Your task to perform on an android device: turn on showing notifications on the lock screen Image 0: 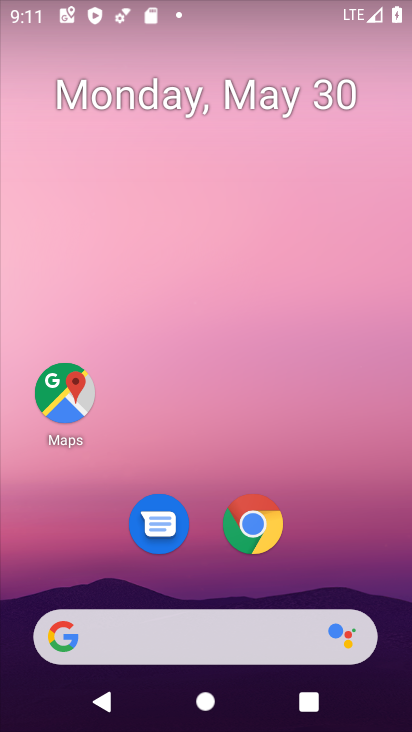
Step 0: drag from (354, 552) to (341, 62)
Your task to perform on an android device: turn on showing notifications on the lock screen Image 1: 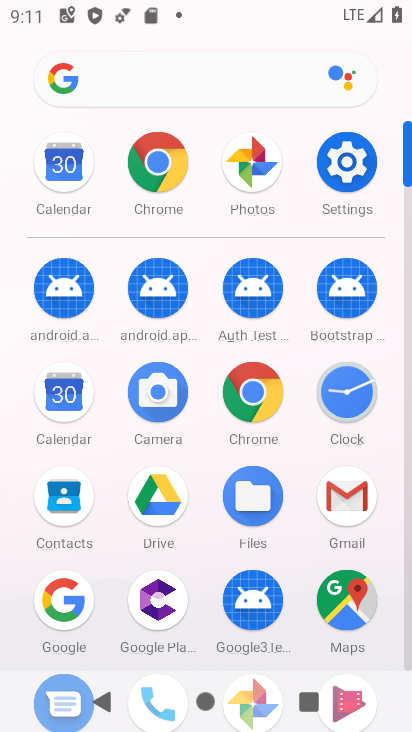
Step 1: click (360, 157)
Your task to perform on an android device: turn on showing notifications on the lock screen Image 2: 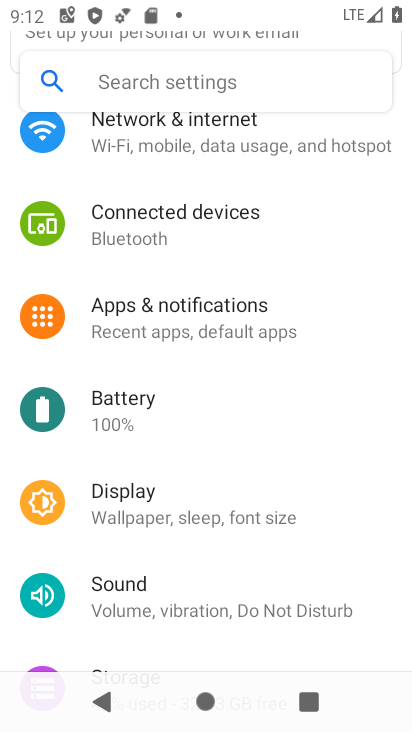
Step 2: click (228, 322)
Your task to perform on an android device: turn on showing notifications on the lock screen Image 3: 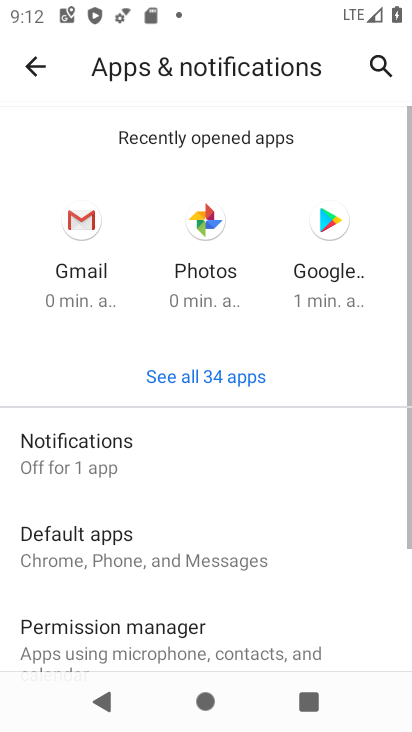
Step 3: click (139, 449)
Your task to perform on an android device: turn on showing notifications on the lock screen Image 4: 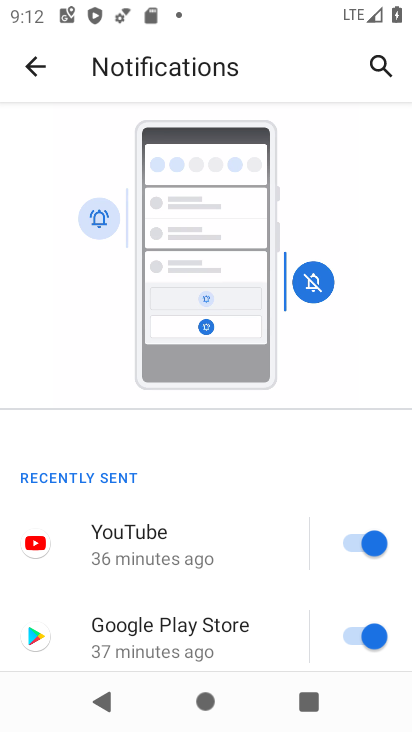
Step 4: task complete